Your task to perform on an android device: uninstall "Life360: Find Family & Friends" Image 0: 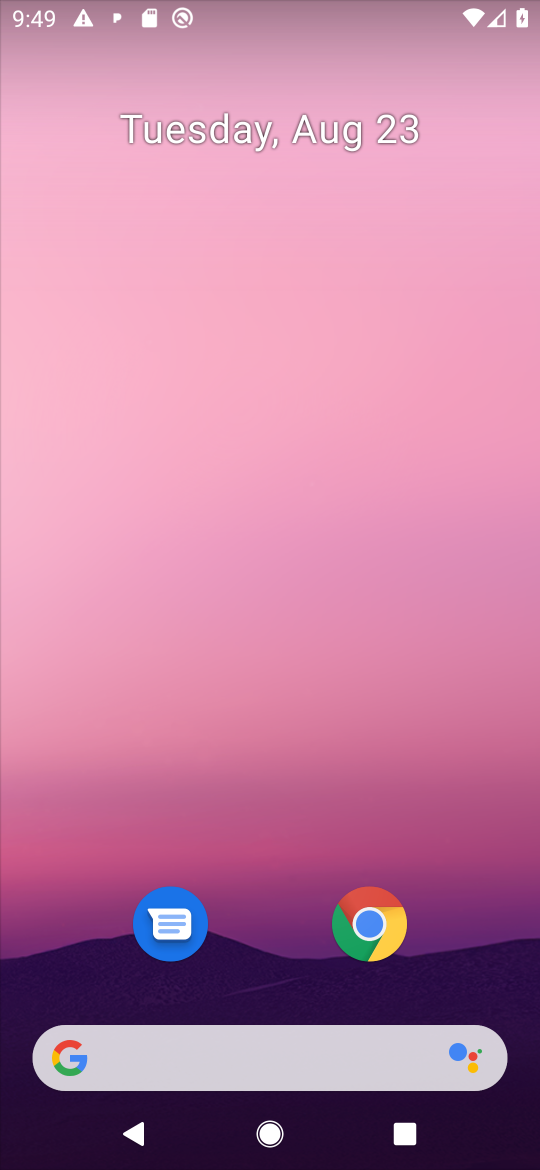
Step 0: press home button
Your task to perform on an android device: uninstall "Life360: Find Family & Friends" Image 1: 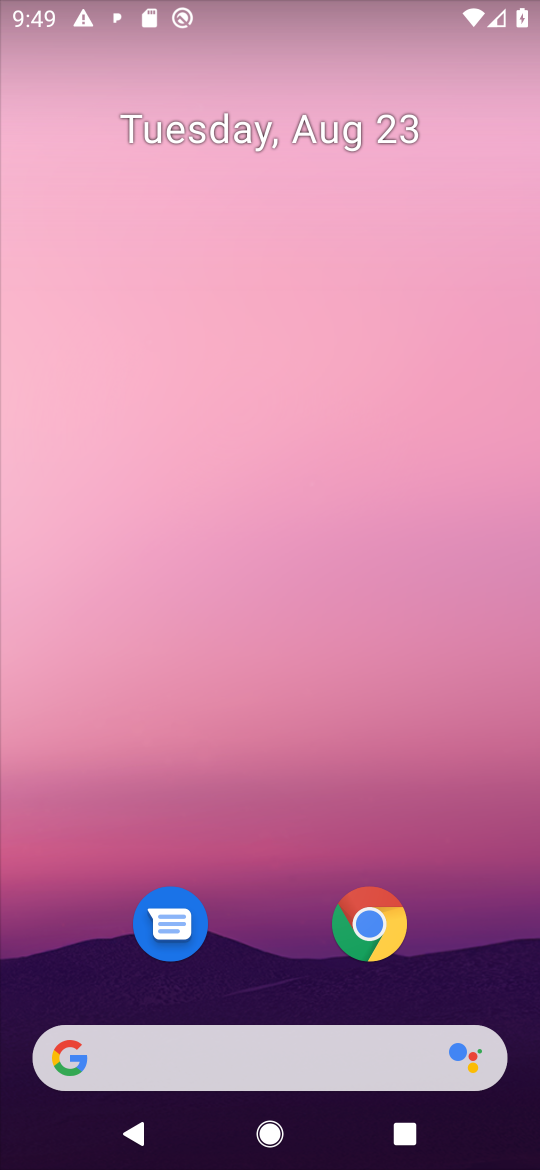
Step 1: drag from (473, 967) to (480, 0)
Your task to perform on an android device: uninstall "Life360: Find Family & Friends" Image 2: 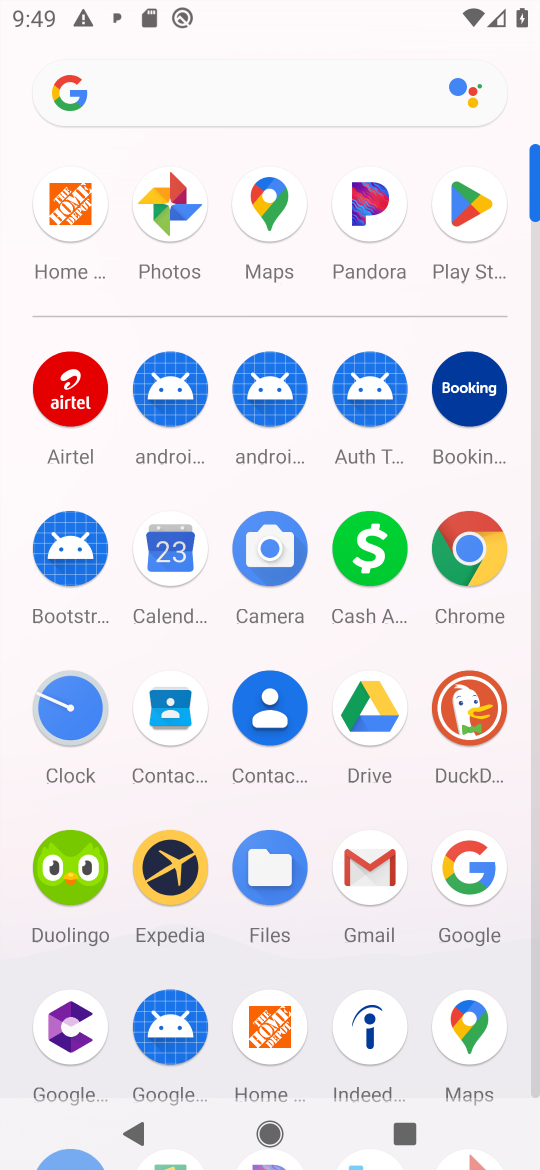
Step 2: click (475, 213)
Your task to perform on an android device: uninstall "Life360: Find Family & Friends" Image 3: 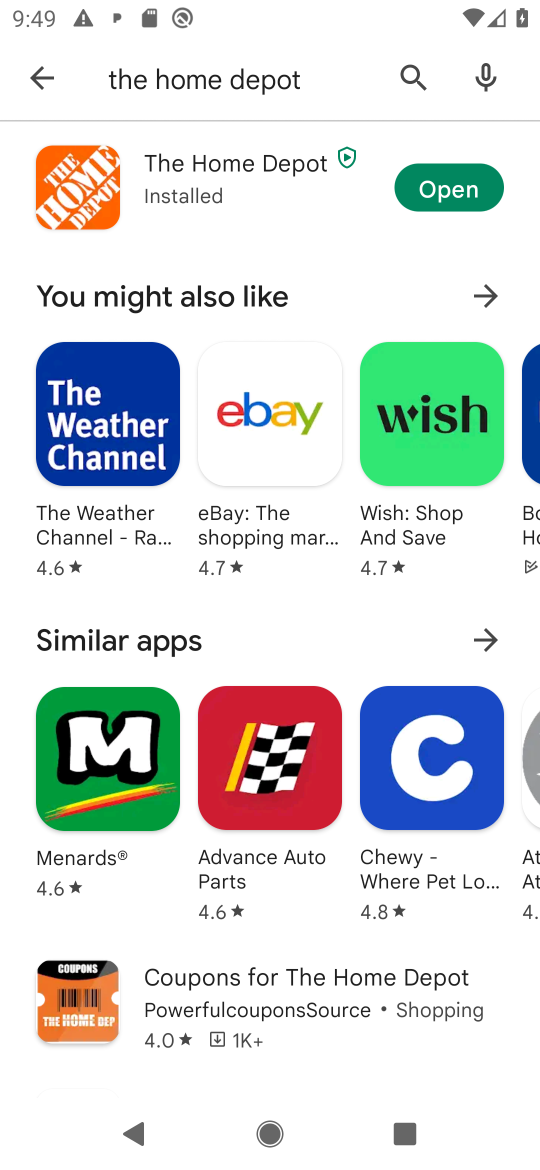
Step 3: press back button
Your task to perform on an android device: uninstall "Life360: Find Family & Friends" Image 4: 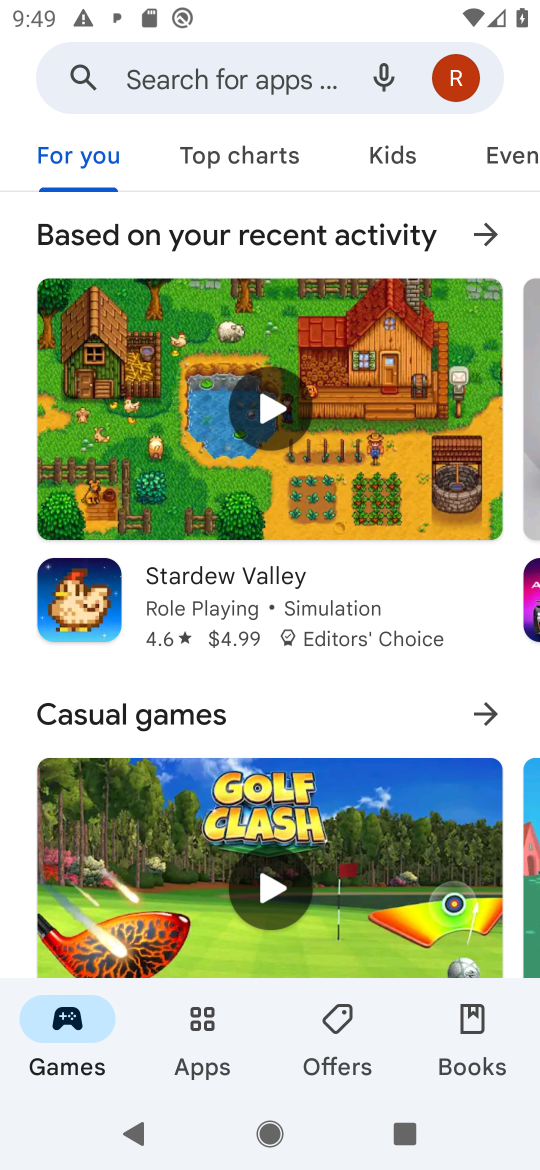
Step 4: click (289, 77)
Your task to perform on an android device: uninstall "Life360: Find Family & Friends" Image 5: 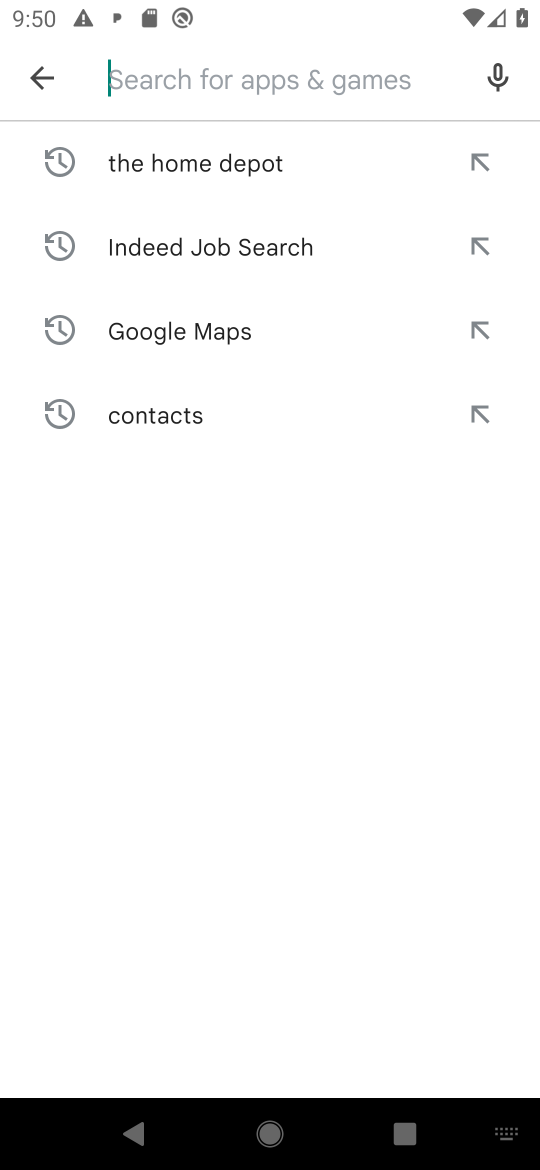
Step 5: type "Life360: Find Family & Friends"
Your task to perform on an android device: uninstall "Life360: Find Family & Friends" Image 6: 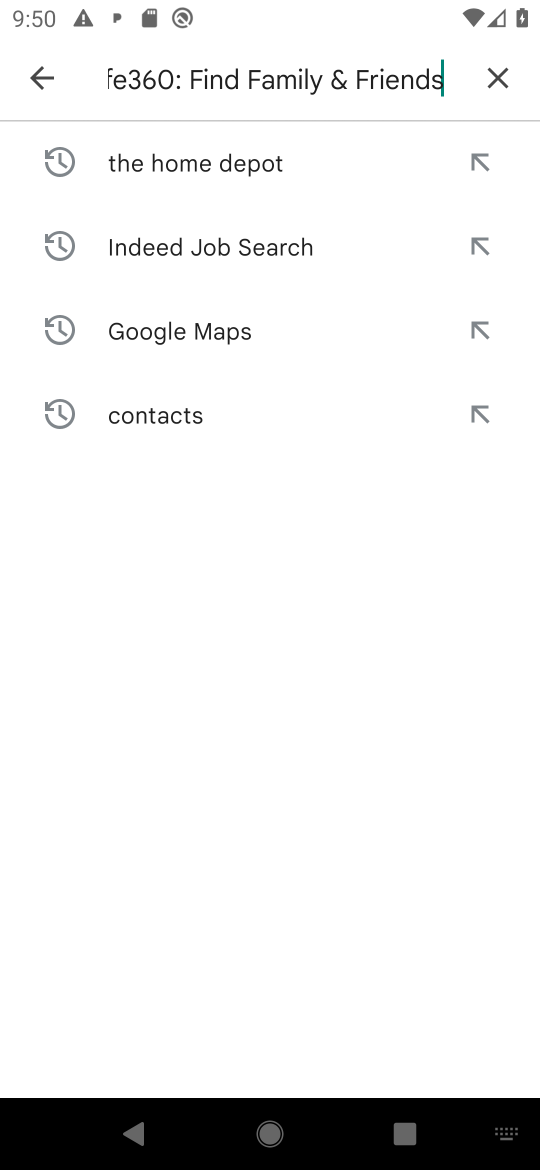
Step 6: press enter
Your task to perform on an android device: uninstall "Life360: Find Family & Friends" Image 7: 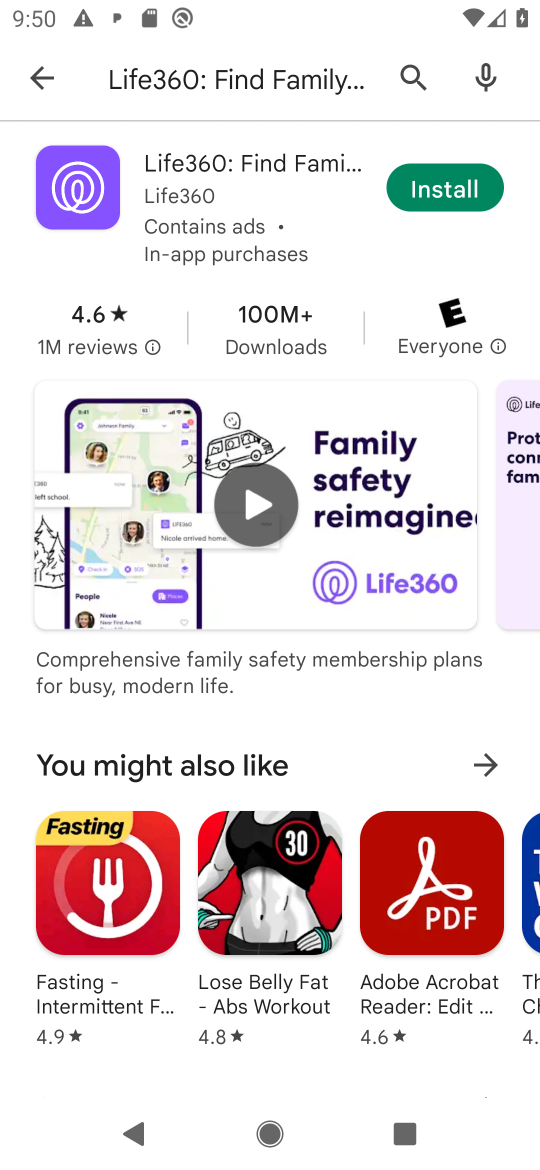
Step 7: task complete